Your task to perform on an android device: turn notification dots on Image 0: 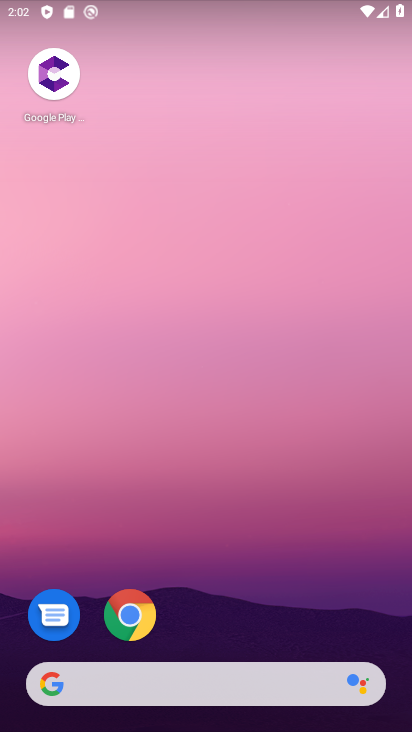
Step 0: drag from (221, 641) to (222, 13)
Your task to perform on an android device: turn notification dots on Image 1: 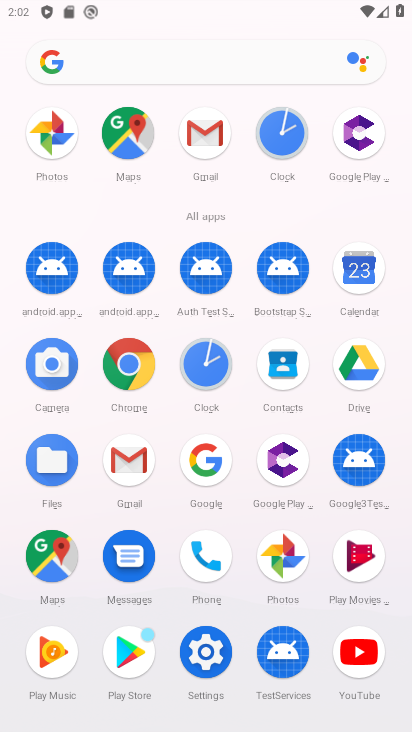
Step 1: click (207, 646)
Your task to perform on an android device: turn notification dots on Image 2: 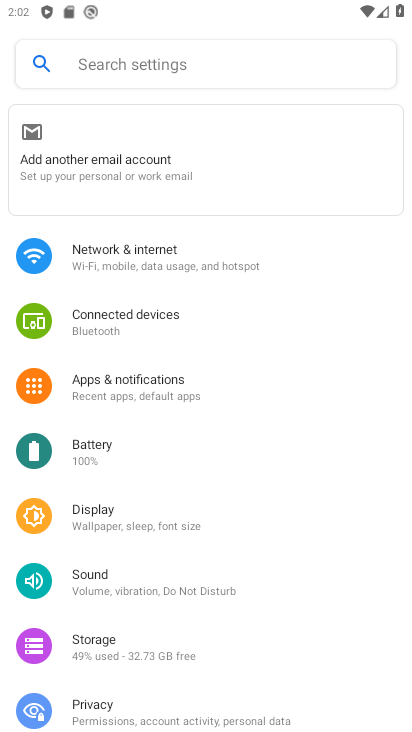
Step 2: click (130, 394)
Your task to perform on an android device: turn notification dots on Image 3: 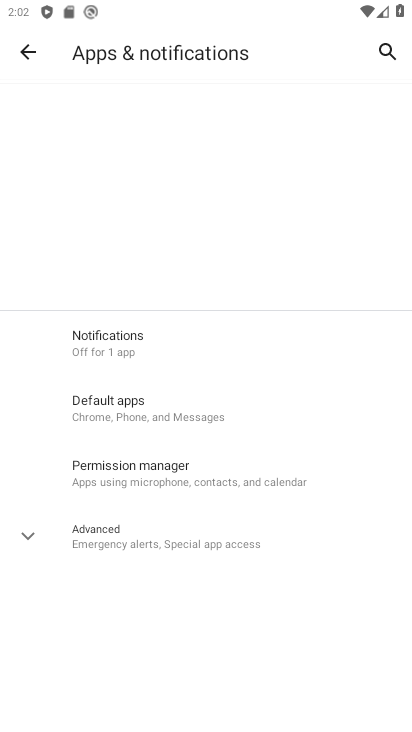
Step 3: click (111, 337)
Your task to perform on an android device: turn notification dots on Image 4: 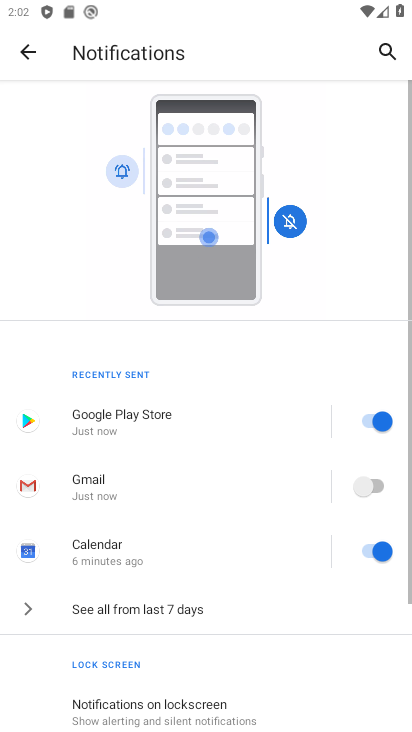
Step 4: drag from (188, 633) to (179, 136)
Your task to perform on an android device: turn notification dots on Image 5: 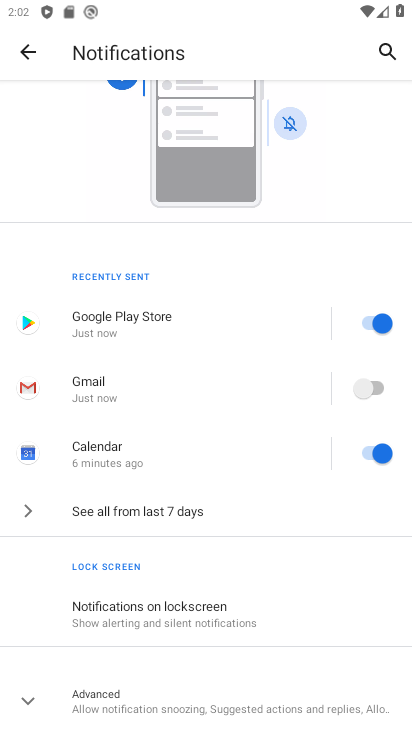
Step 5: click (25, 708)
Your task to perform on an android device: turn notification dots on Image 6: 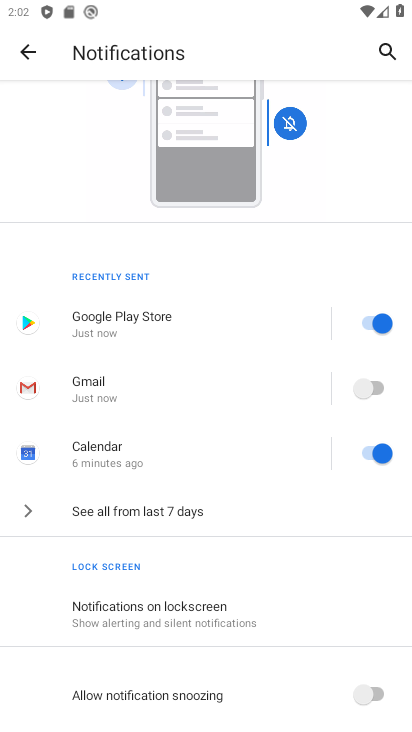
Step 6: task complete